Your task to perform on an android device: Show the shopping cart on target.com. Search for razer deathadder on target.com, select the first entry, add it to the cart, then select checkout. Image 0: 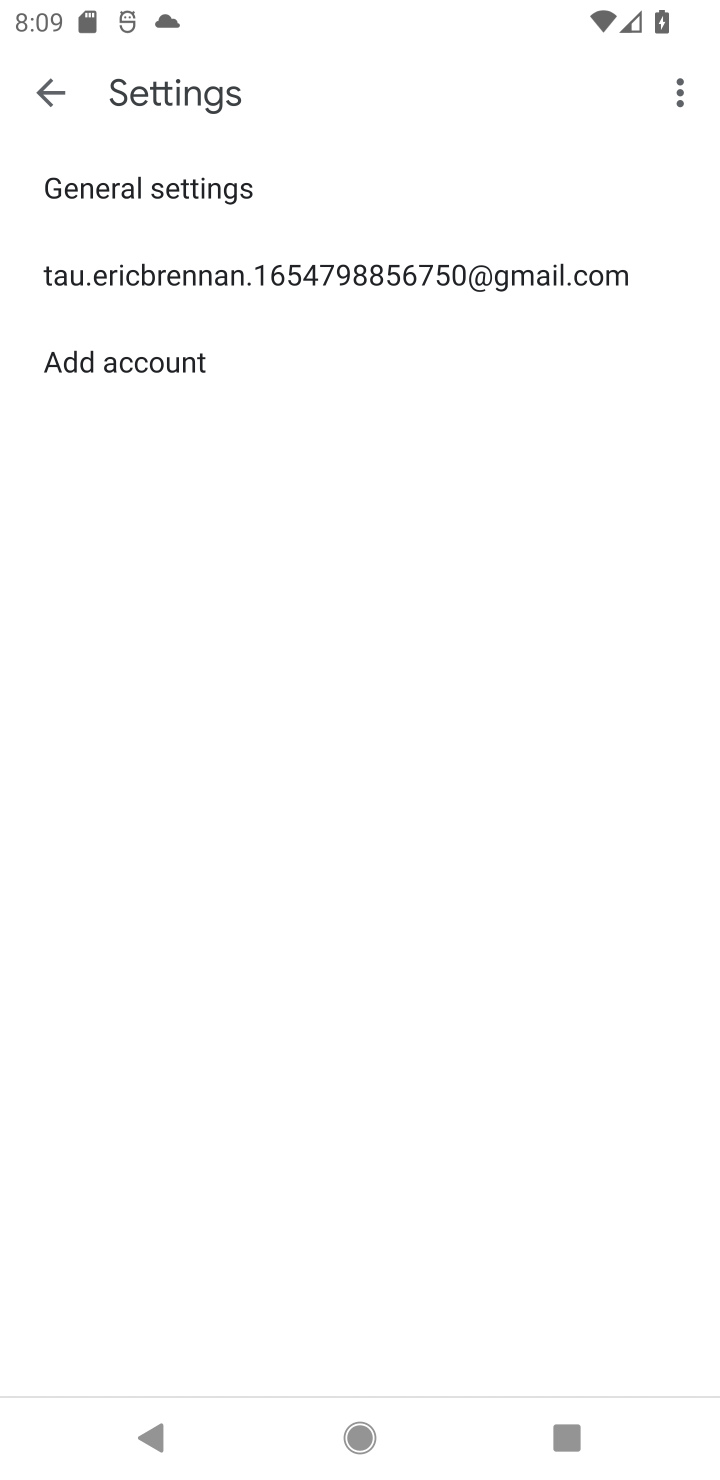
Step 0: press home button
Your task to perform on an android device: Show the shopping cart on target.com. Search for razer deathadder on target.com, select the first entry, add it to the cart, then select checkout. Image 1: 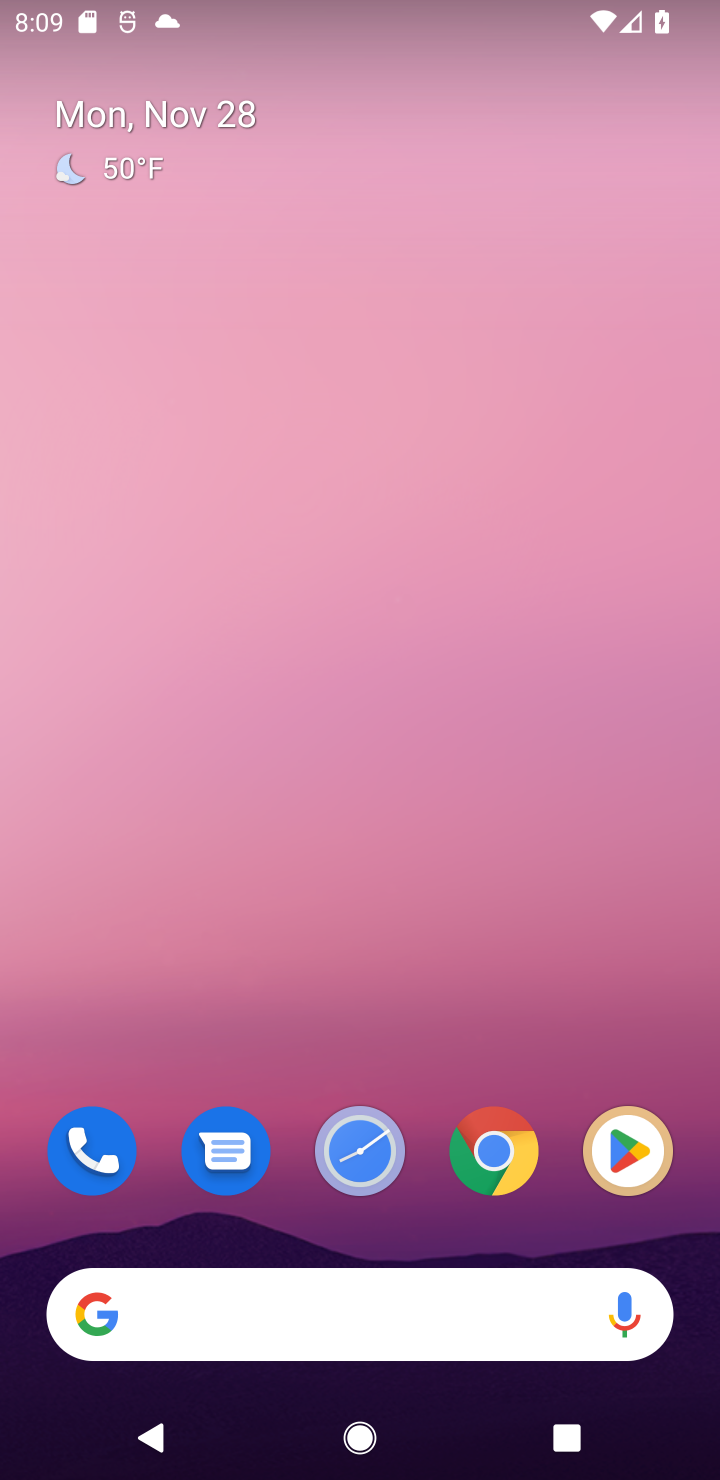
Step 1: click (283, 1295)
Your task to perform on an android device: Show the shopping cart on target.com. Search for razer deathadder on target.com, select the first entry, add it to the cart, then select checkout. Image 2: 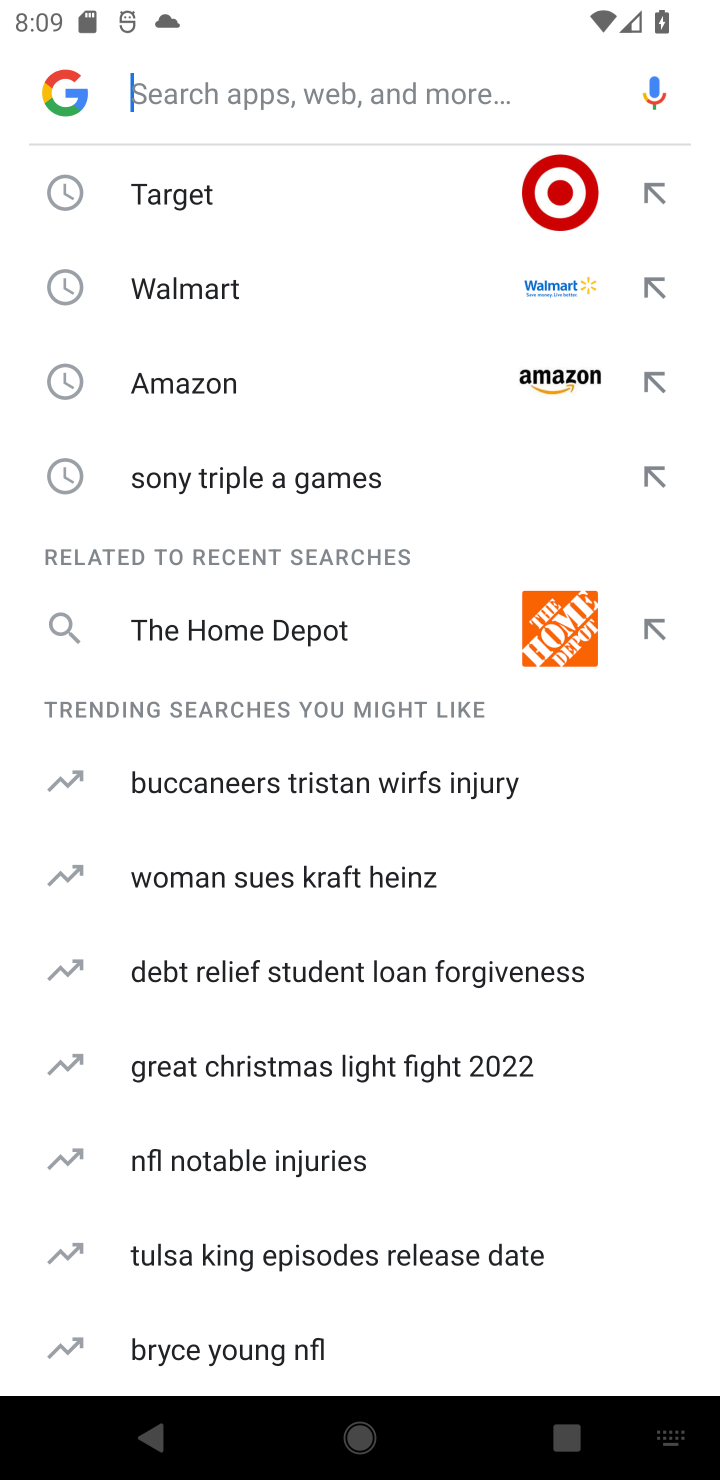
Step 2: type "target"
Your task to perform on an android device: Show the shopping cart on target.com. Search for razer deathadder on target.com, select the first entry, add it to the cart, then select checkout. Image 3: 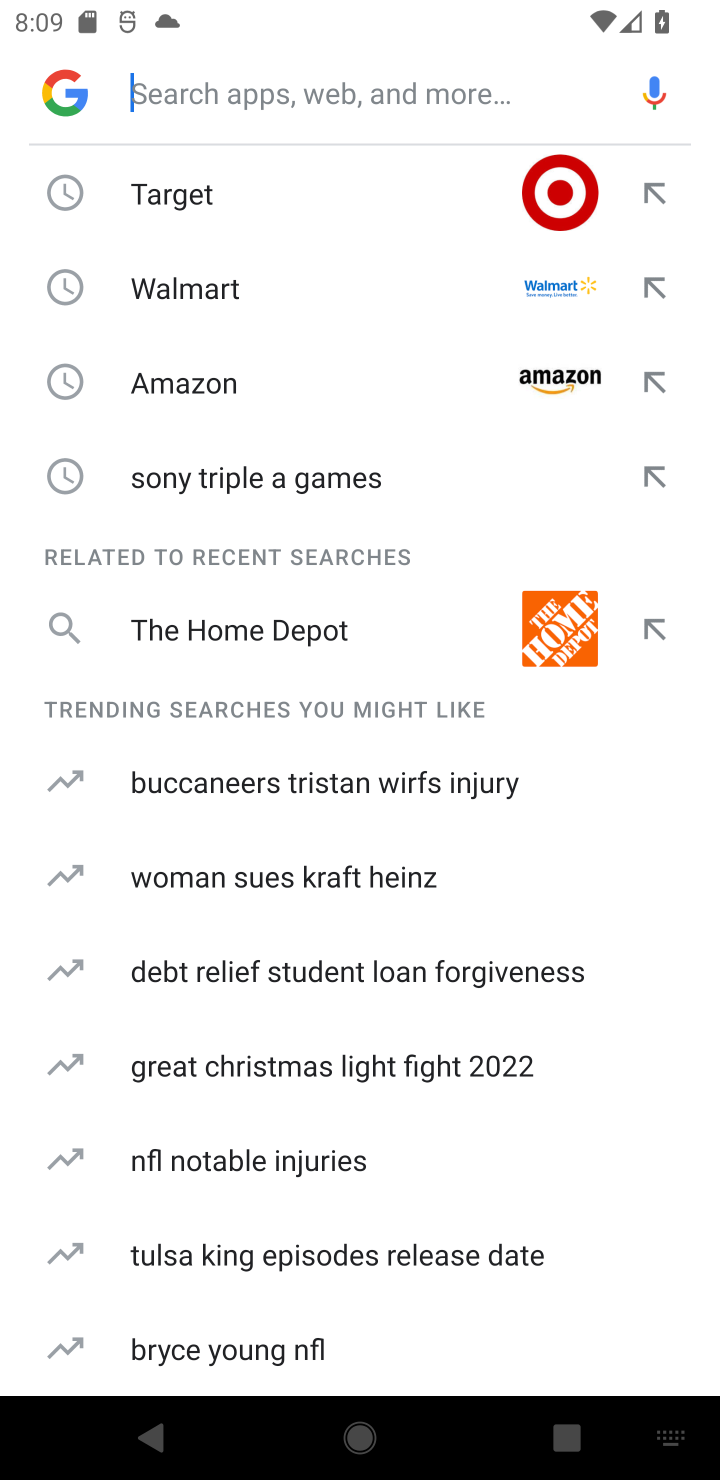
Step 3: click (175, 198)
Your task to perform on an android device: Show the shopping cart on target.com. Search for razer deathadder on target.com, select the first entry, add it to the cart, then select checkout. Image 4: 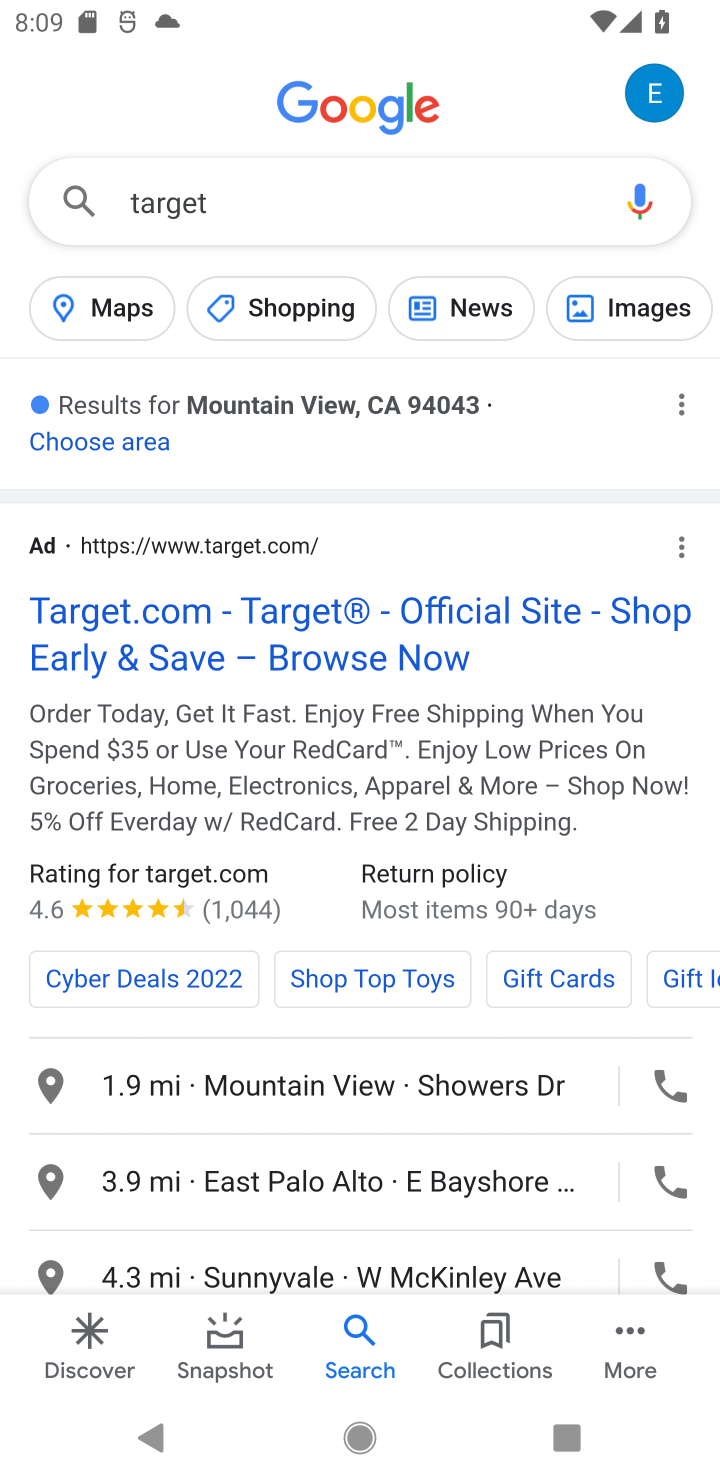
Step 4: click (431, 667)
Your task to perform on an android device: Show the shopping cart on target.com. Search for razer deathadder on target.com, select the first entry, add it to the cart, then select checkout. Image 5: 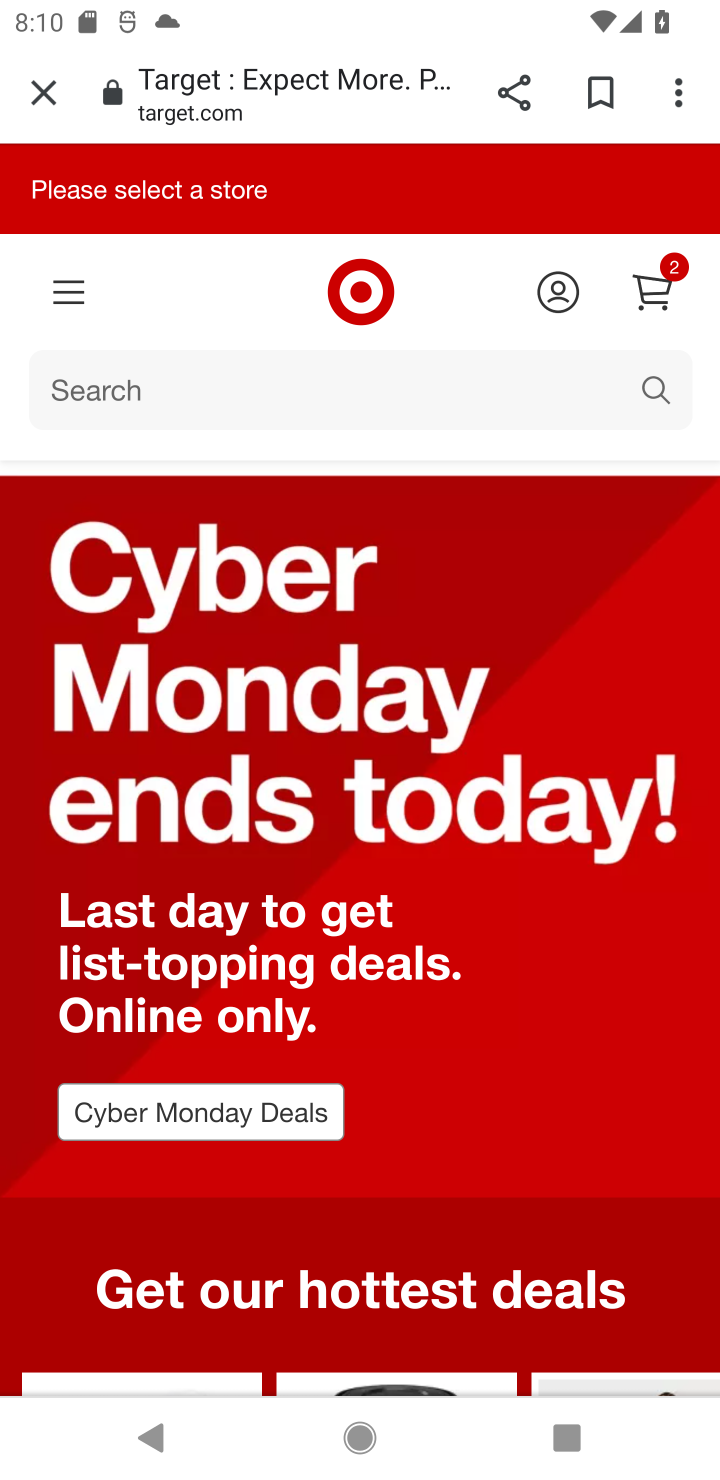
Step 5: click (306, 395)
Your task to perform on an android device: Show the shopping cart on target.com. Search for razer deathadder on target.com, select the first entry, add it to the cart, then select checkout. Image 6: 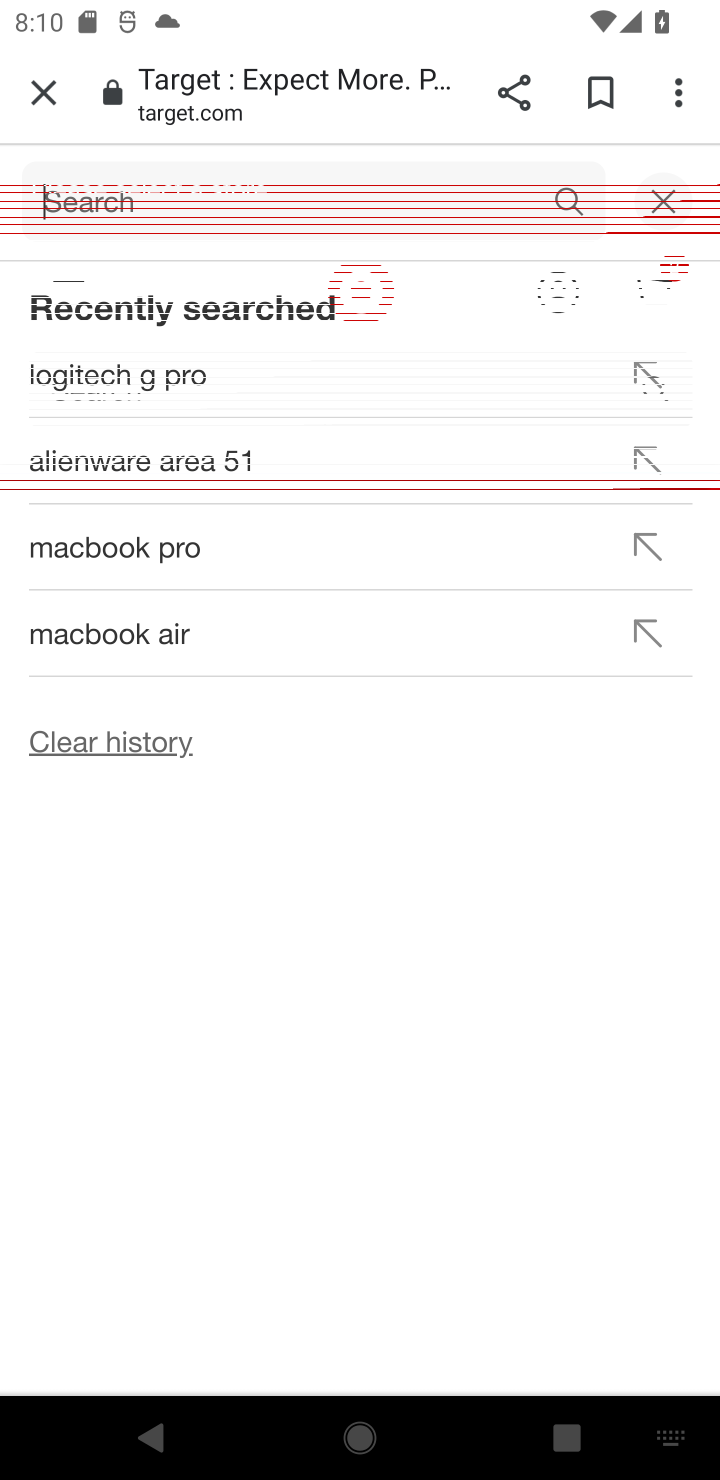
Step 6: type "target"
Your task to perform on an android device: Show the shopping cart on target.com. Search for razer deathadder on target.com, select the first entry, add it to the cart, then select checkout. Image 7: 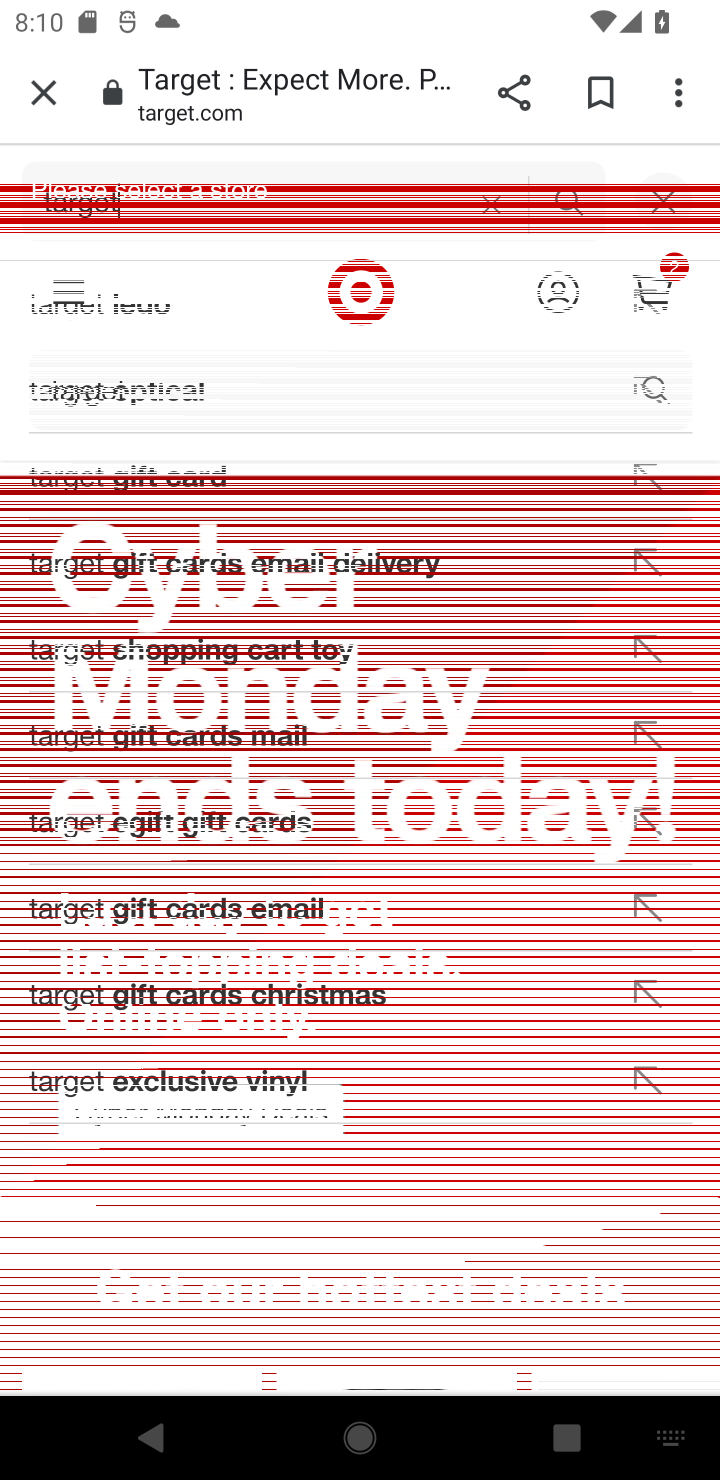
Step 7: task complete